Your task to perform on an android device: uninstall "eBay: The shopping marketplace" Image 0: 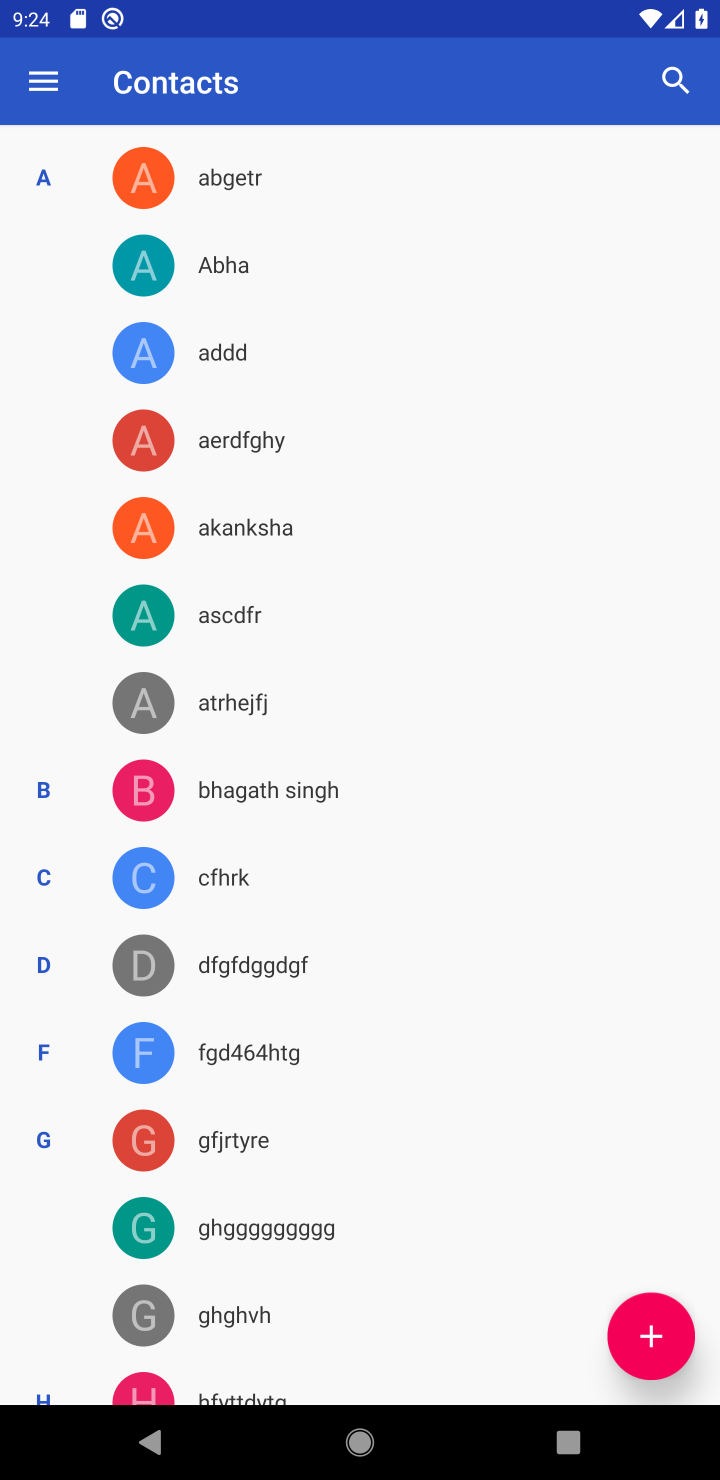
Step 0: press home button
Your task to perform on an android device: uninstall "eBay: The shopping marketplace" Image 1: 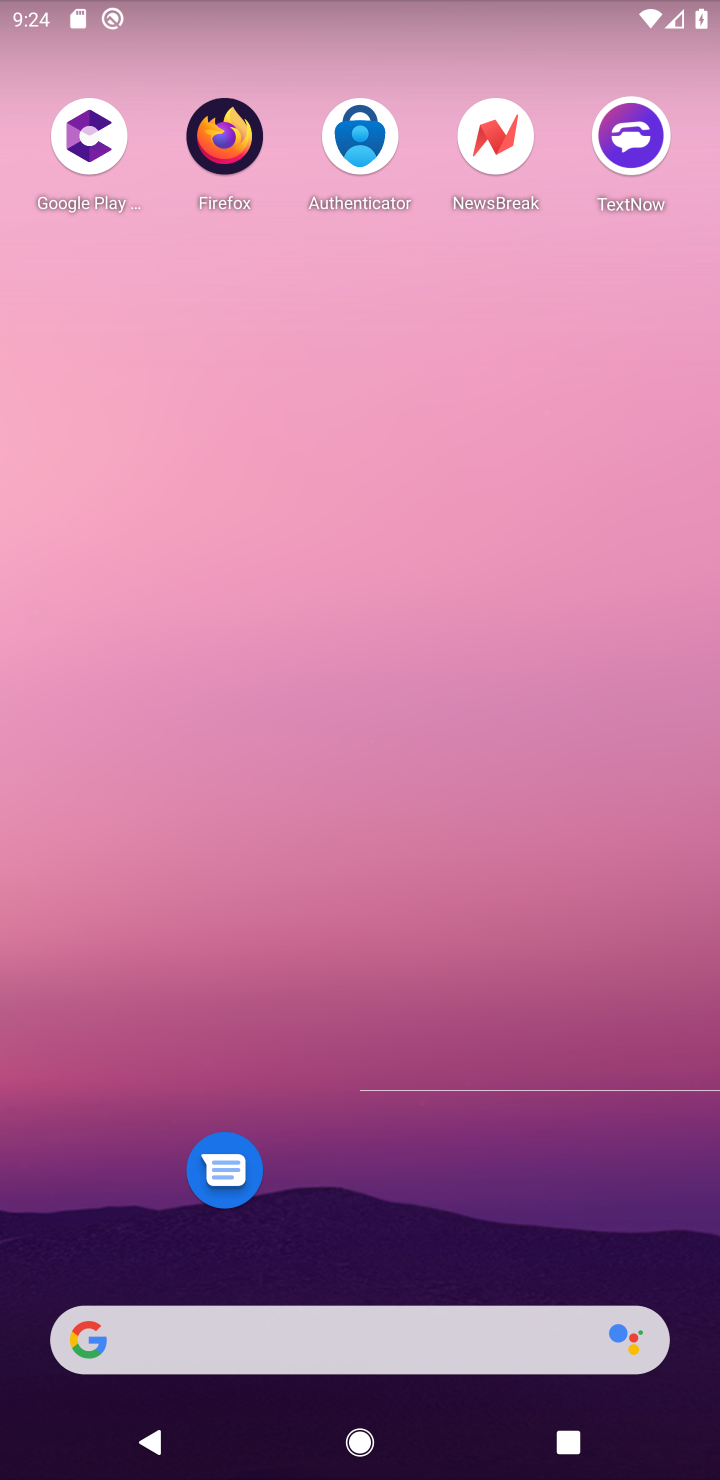
Step 1: drag from (476, 1296) to (547, 82)
Your task to perform on an android device: uninstall "eBay: The shopping marketplace" Image 2: 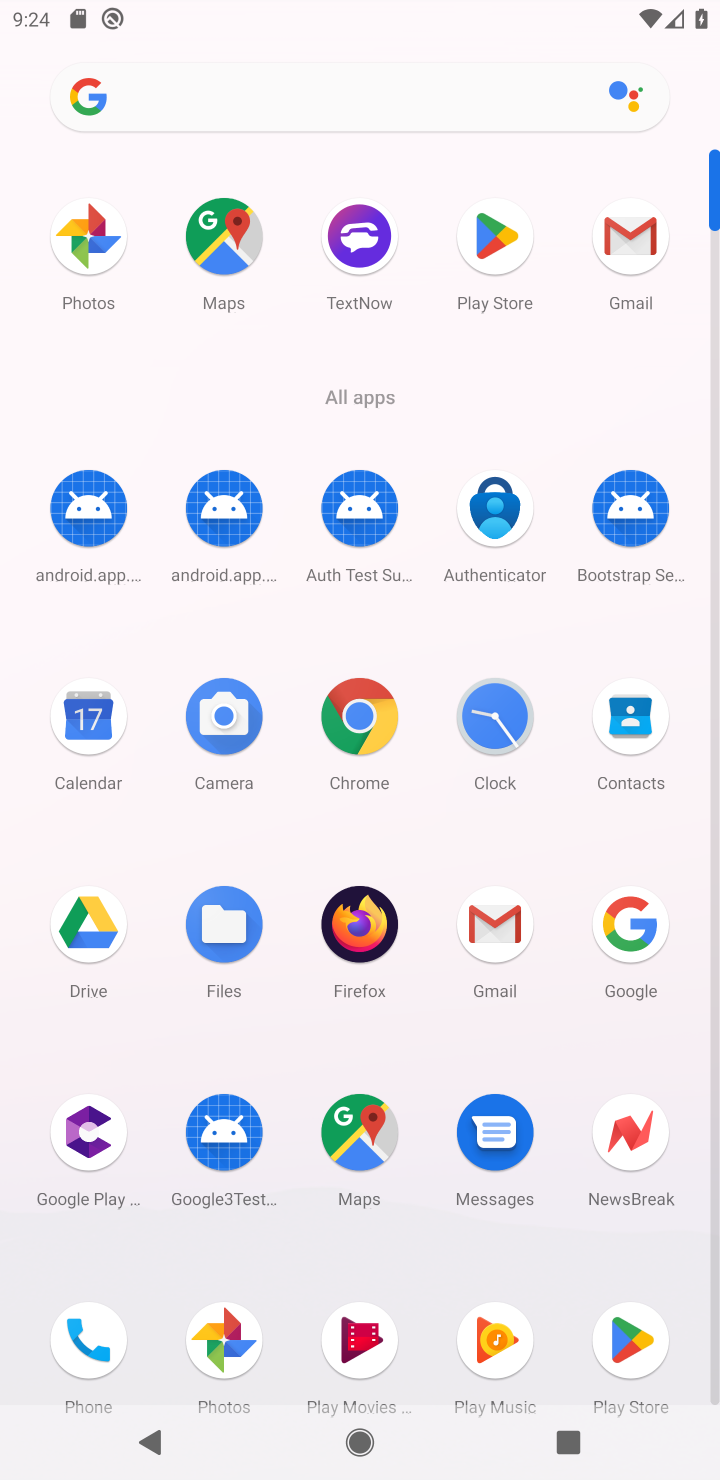
Step 2: click (635, 1331)
Your task to perform on an android device: uninstall "eBay: The shopping marketplace" Image 3: 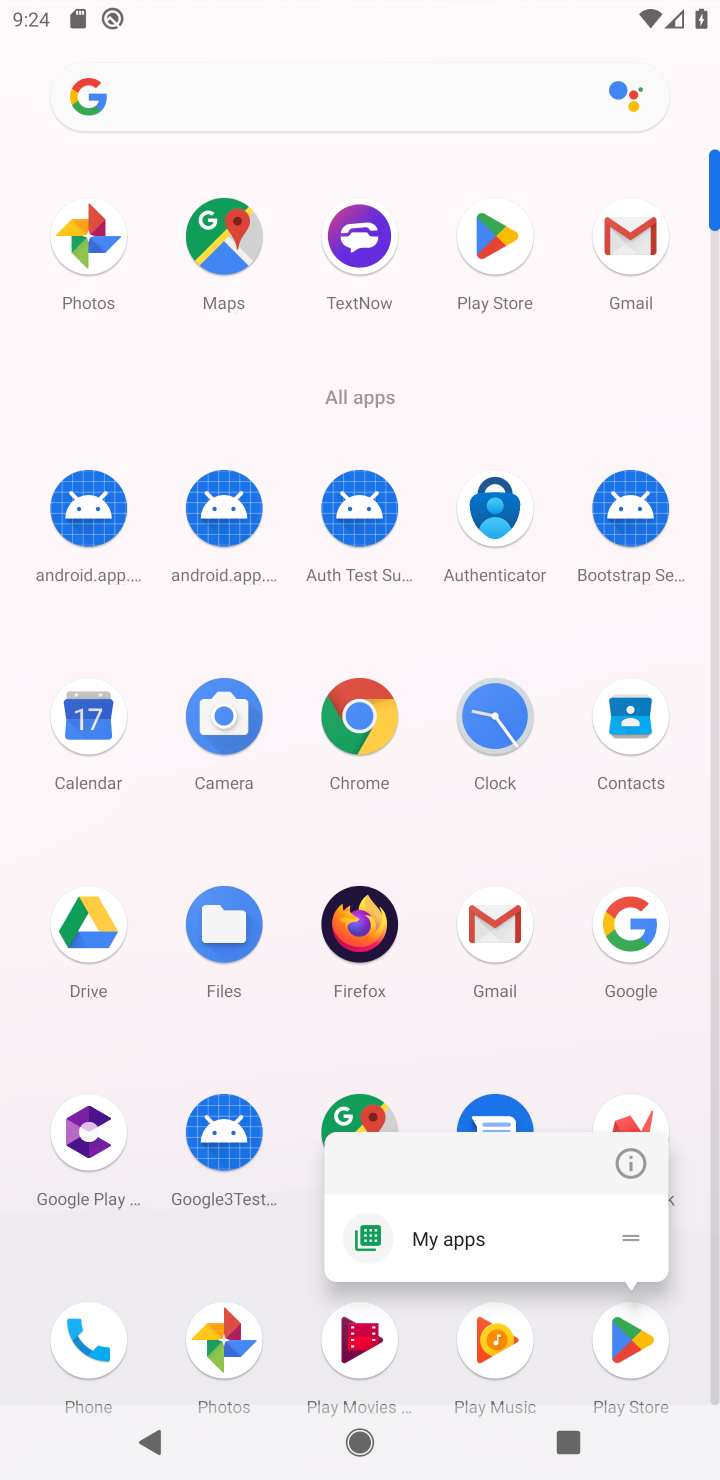
Step 3: click (622, 1360)
Your task to perform on an android device: uninstall "eBay: The shopping marketplace" Image 4: 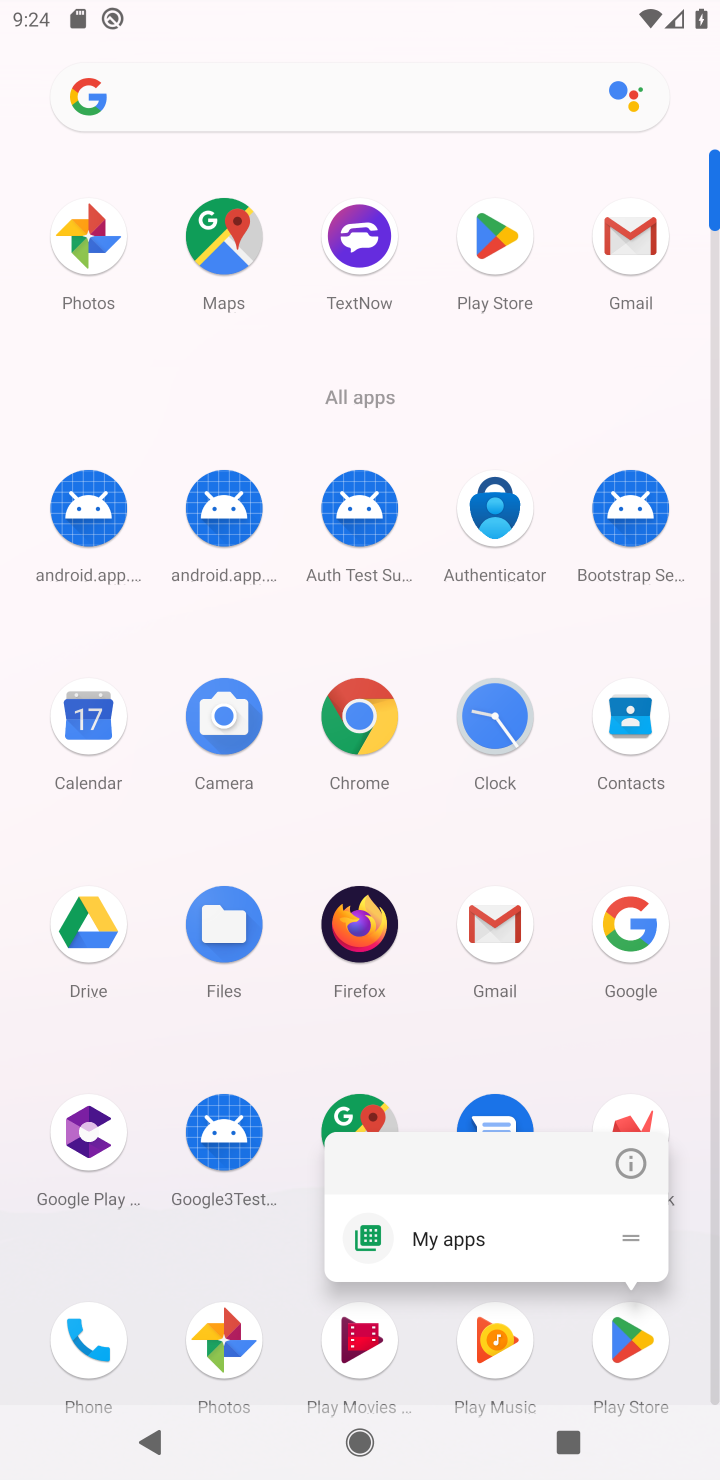
Step 4: click (622, 1360)
Your task to perform on an android device: uninstall "eBay: The shopping marketplace" Image 5: 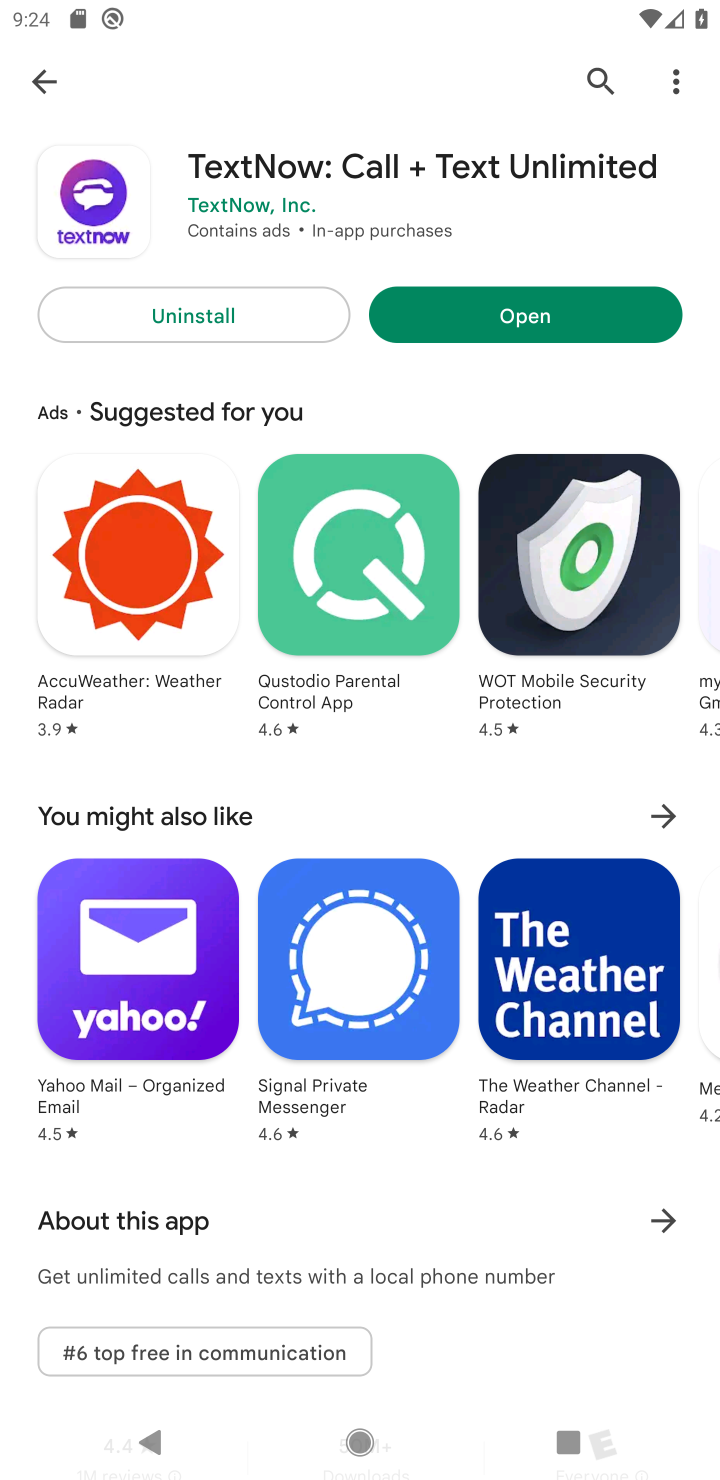
Step 5: click (45, 75)
Your task to perform on an android device: uninstall "eBay: The shopping marketplace" Image 6: 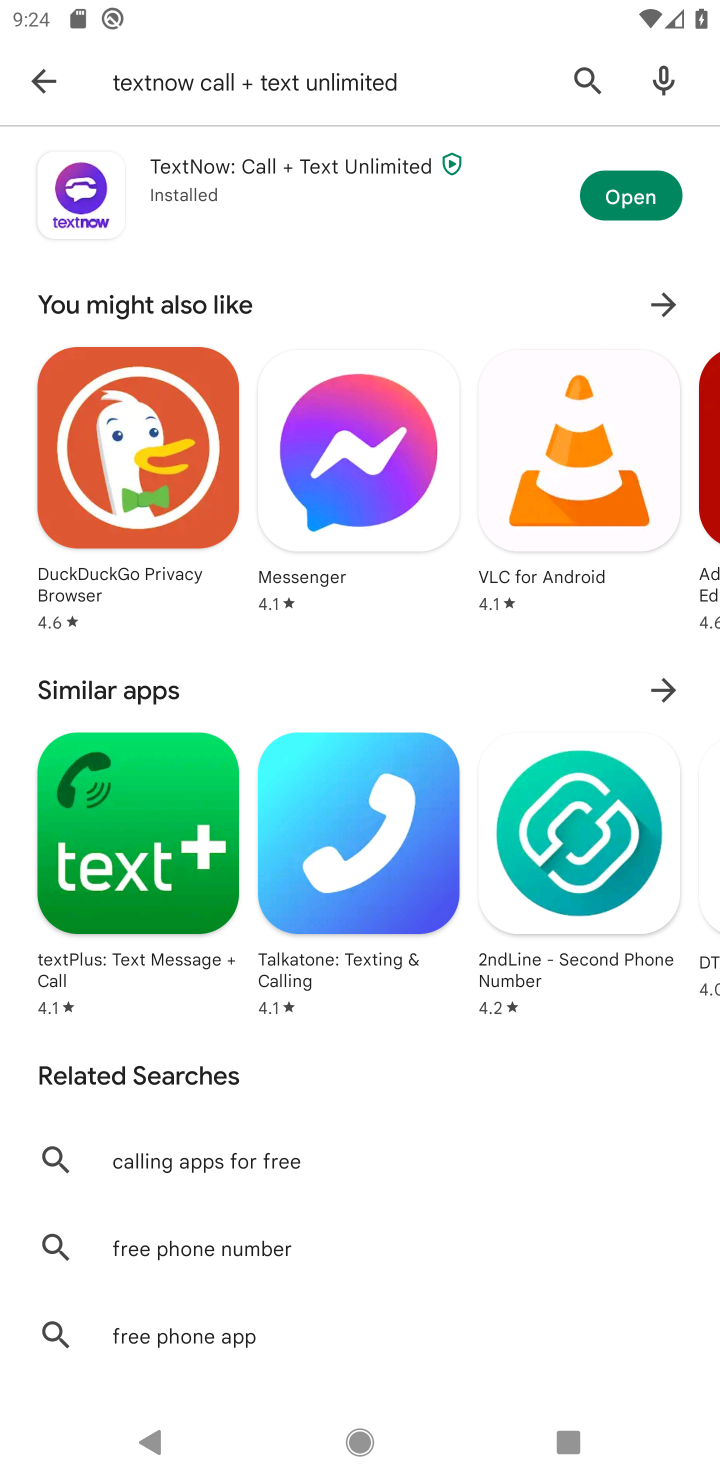
Step 6: click (586, 72)
Your task to perform on an android device: uninstall "eBay: The shopping marketplace" Image 7: 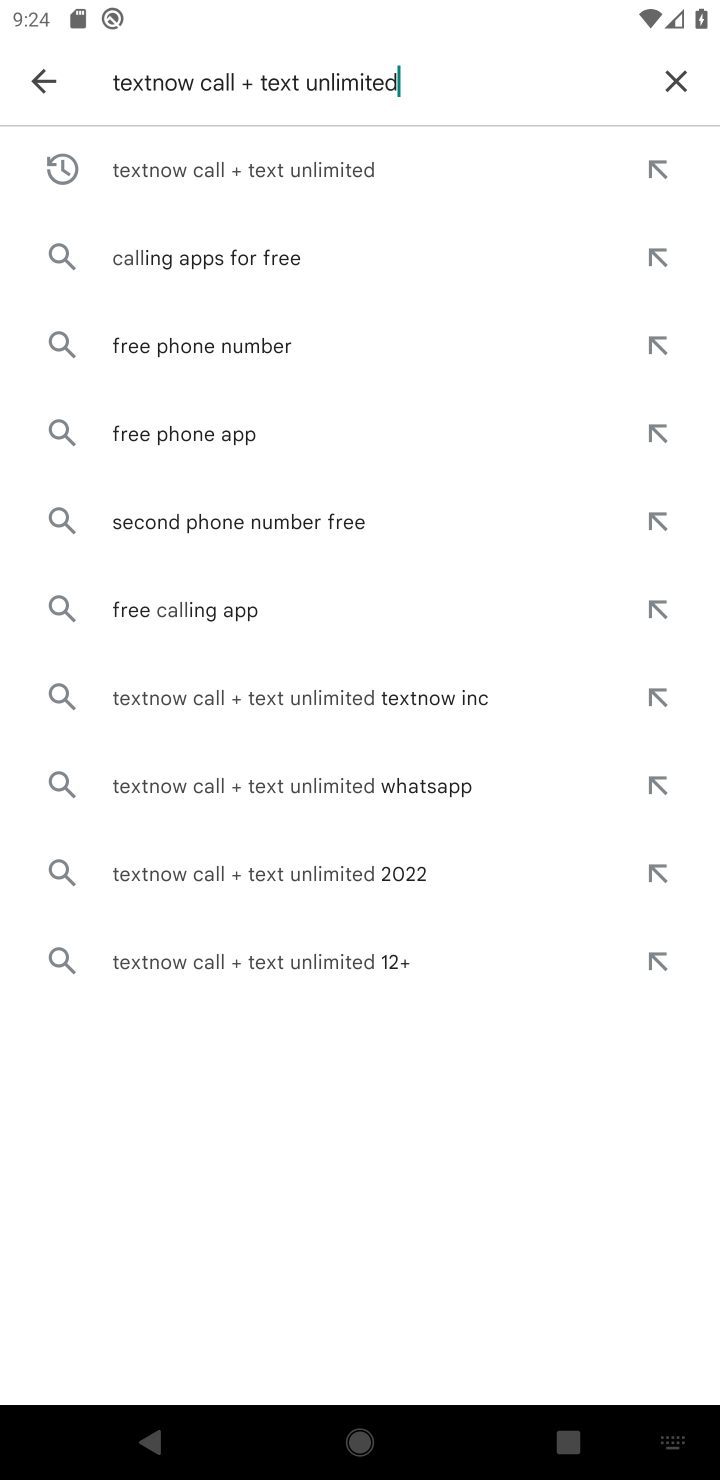
Step 7: click (671, 85)
Your task to perform on an android device: uninstall "eBay: The shopping marketplace" Image 8: 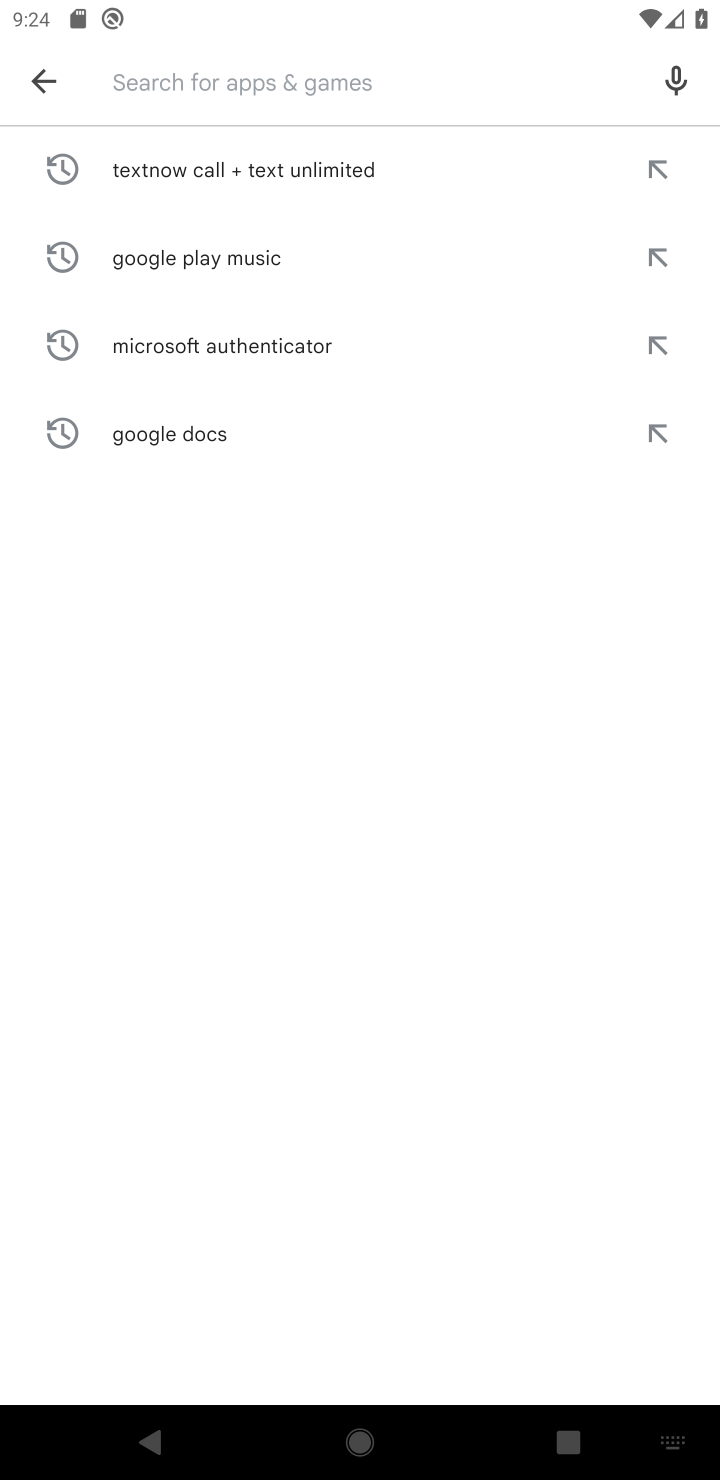
Step 8: type "eBay: The shopping marketplace"
Your task to perform on an android device: uninstall "eBay: The shopping marketplace" Image 9: 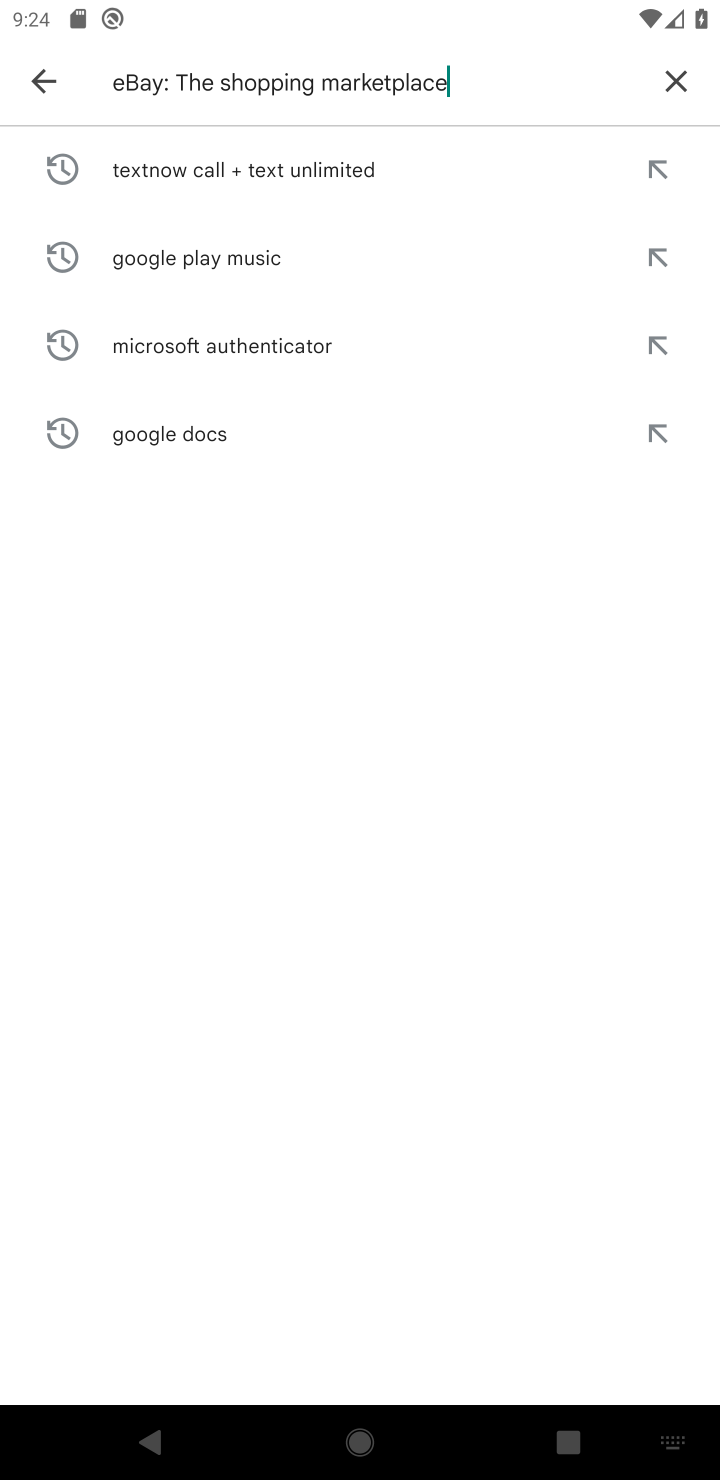
Step 9: type ""
Your task to perform on an android device: uninstall "eBay: The shopping marketplace" Image 10: 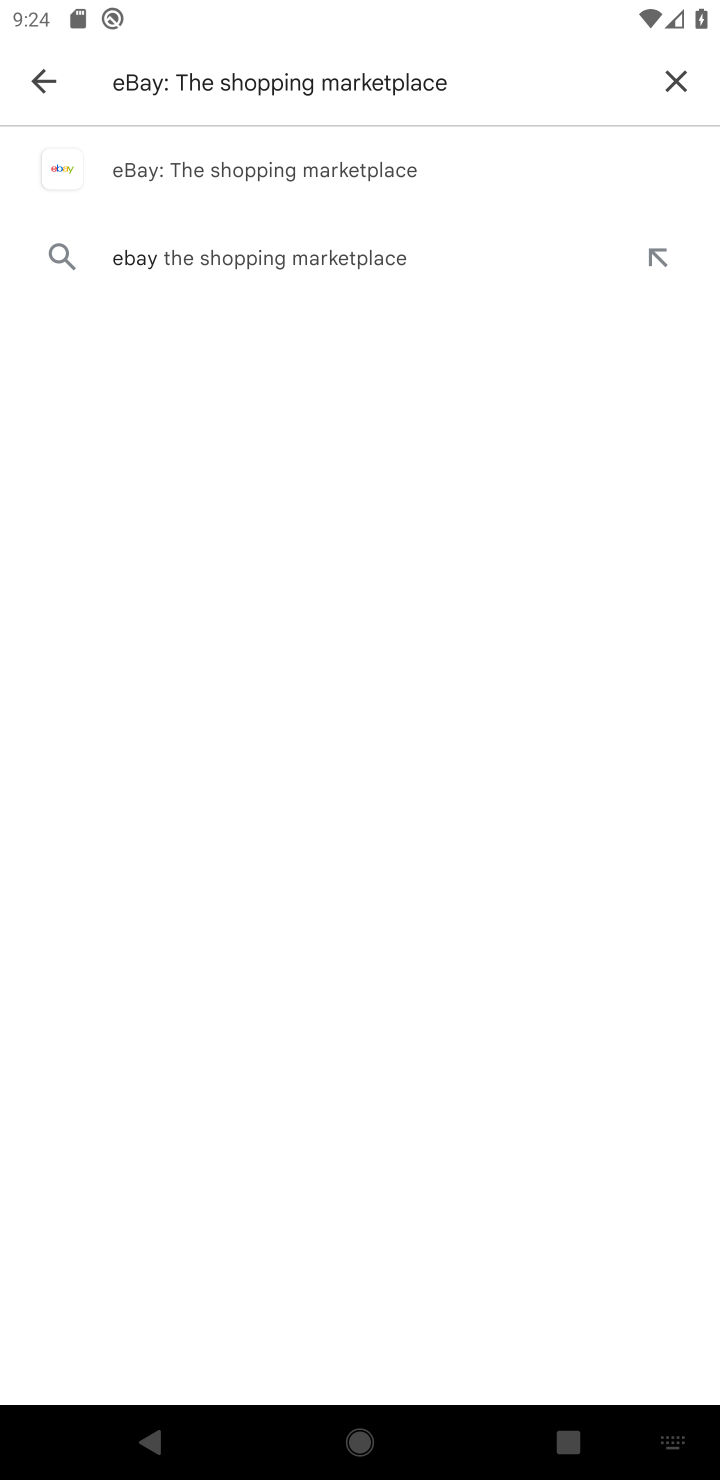
Step 10: click (185, 145)
Your task to perform on an android device: uninstall "eBay: The shopping marketplace" Image 11: 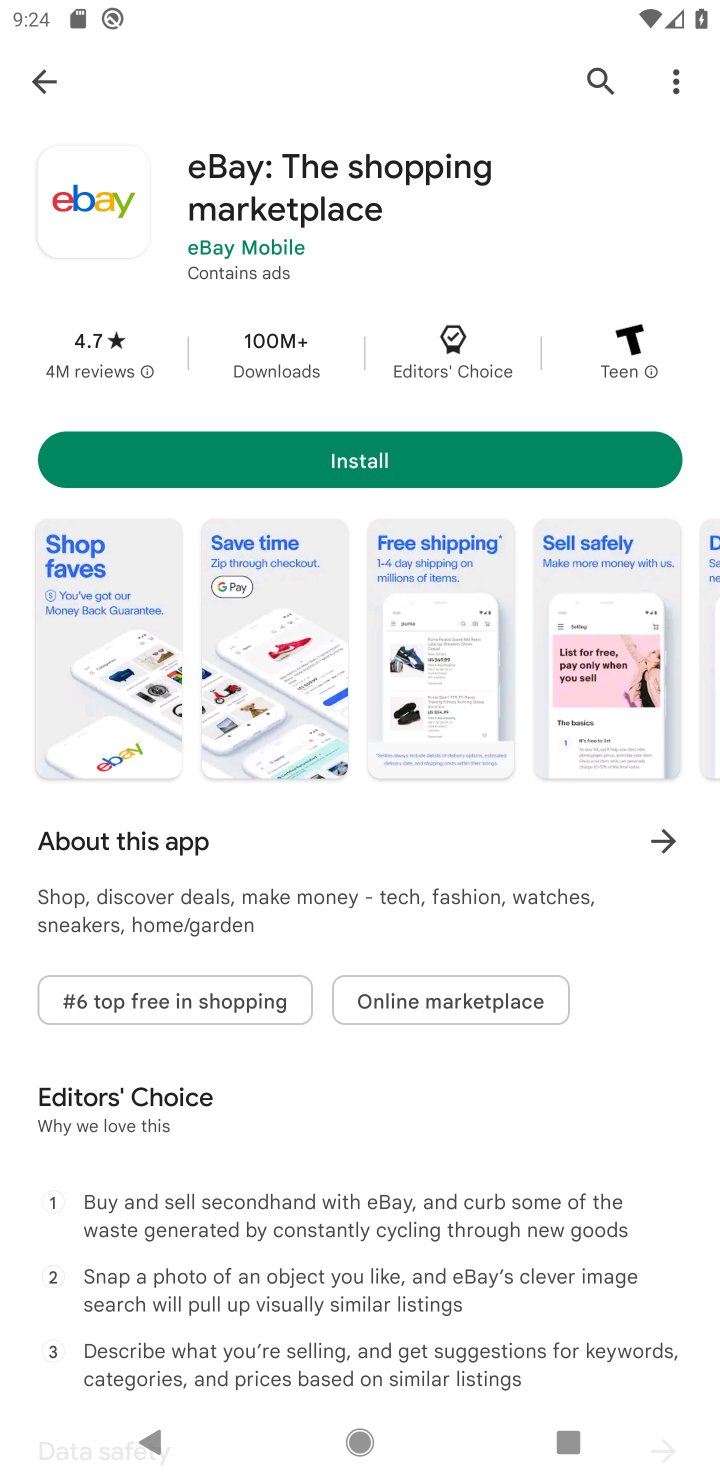
Step 11: task complete